Your task to perform on an android device: Go to settings Image 0: 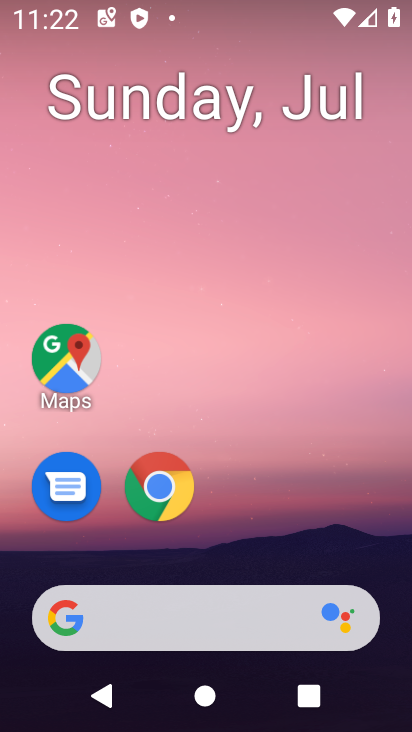
Step 0: drag from (355, 493) to (353, 104)
Your task to perform on an android device: Go to settings Image 1: 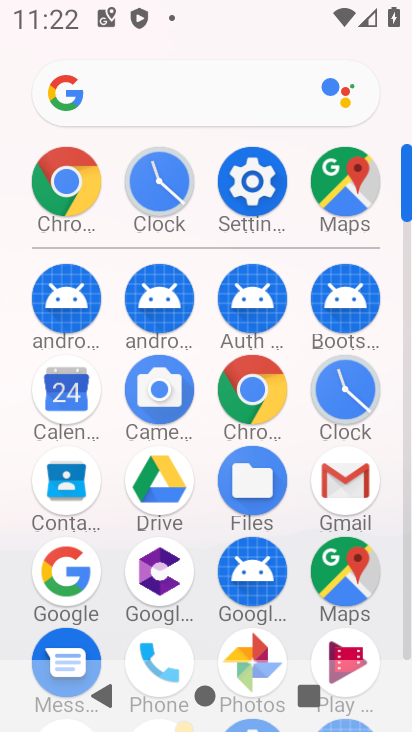
Step 1: click (260, 180)
Your task to perform on an android device: Go to settings Image 2: 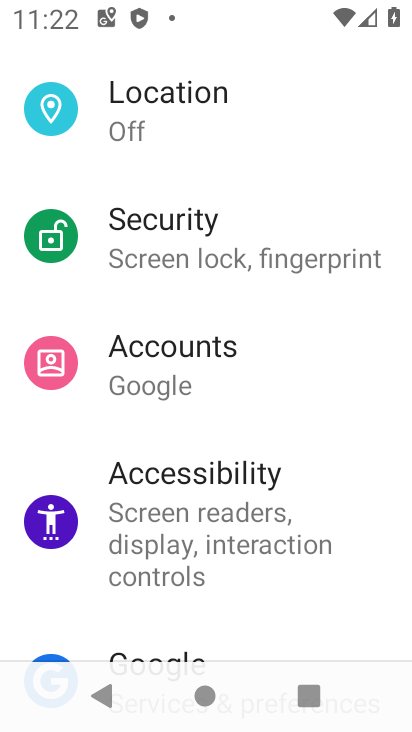
Step 2: task complete